Your task to perform on an android device: toggle sleep mode Image 0: 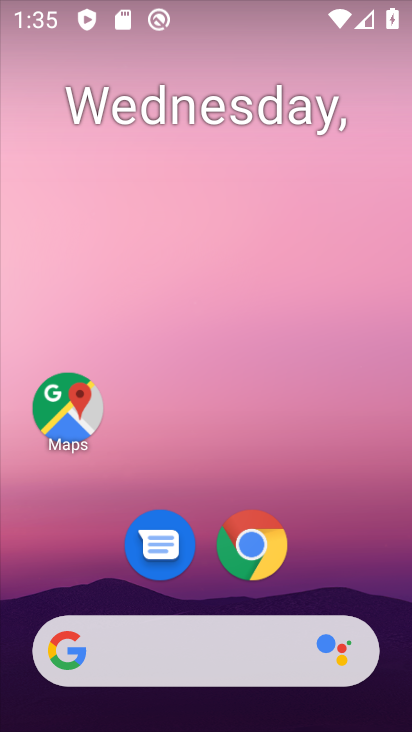
Step 0: drag from (312, 560) to (259, 62)
Your task to perform on an android device: toggle sleep mode Image 1: 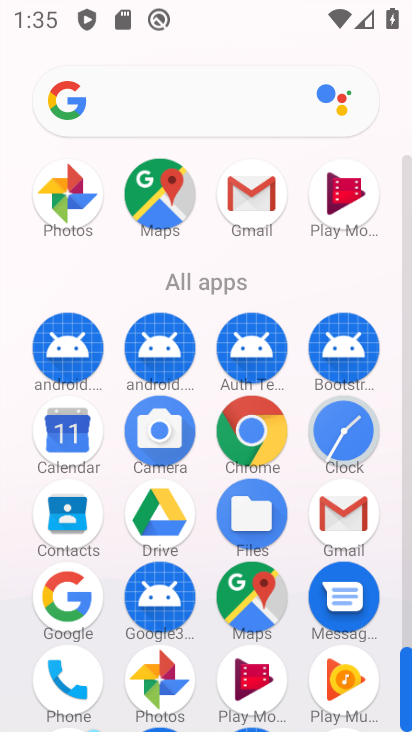
Step 1: drag from (184, 567) to (210, 197)
Your task to perform on an android device: toggle sleep mode Image 2: 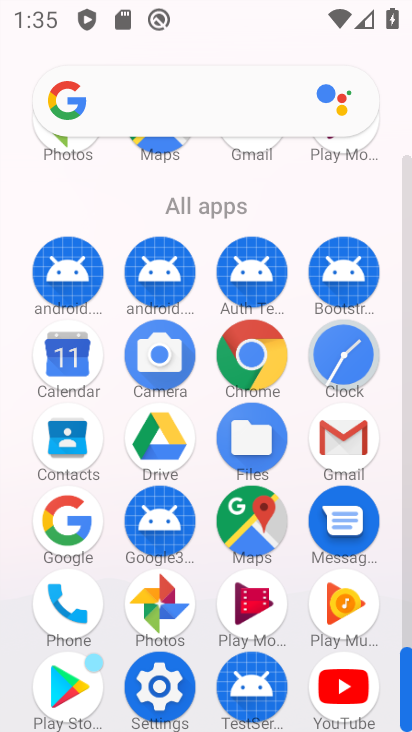
Step 2: click (169, 673)
Your task to perform on an android device: toggle sleep mode Image 3: 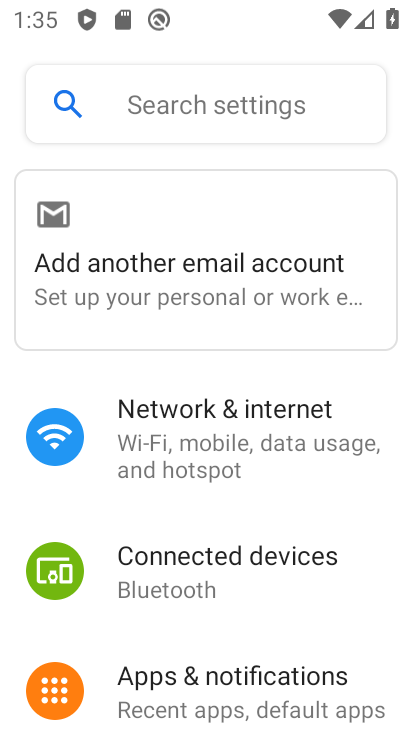
Step 3: drag from (253, 625) to (233, 164)
Your task to perform on an android device: toggle sleep mode Image 4: 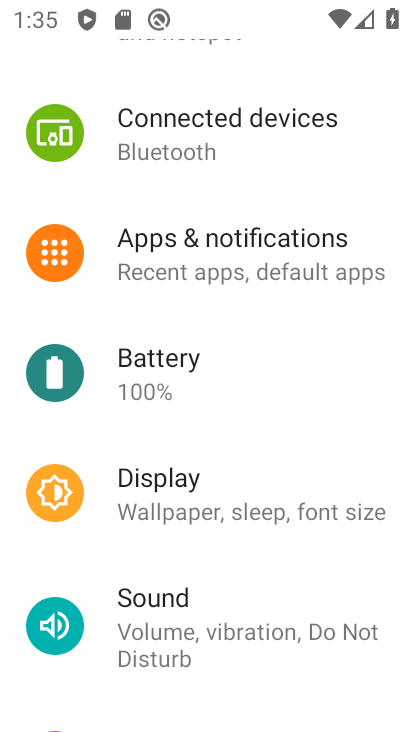
Step 4: drag from (259, 618) to (245, 308)
Your task to perform on an android device: toggle sleep mode Image 5: 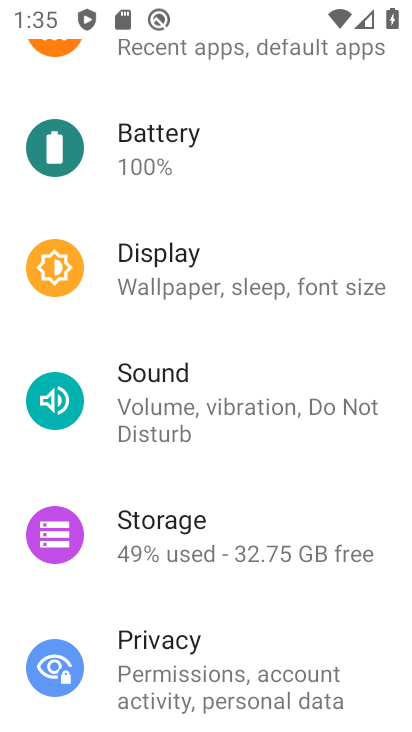
Step 5: click (243, 267)
Your task to perform on an android device: toggle sleep mode Image 6: 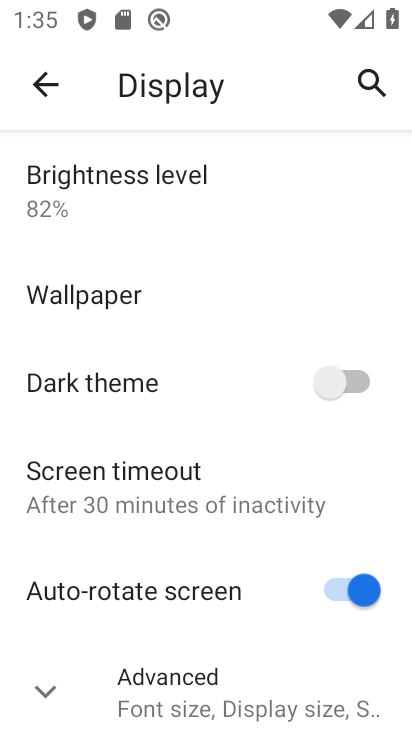
Step 6: click (171, 473)
Your task to perform on an android device: toggle sleep mode Image 7: 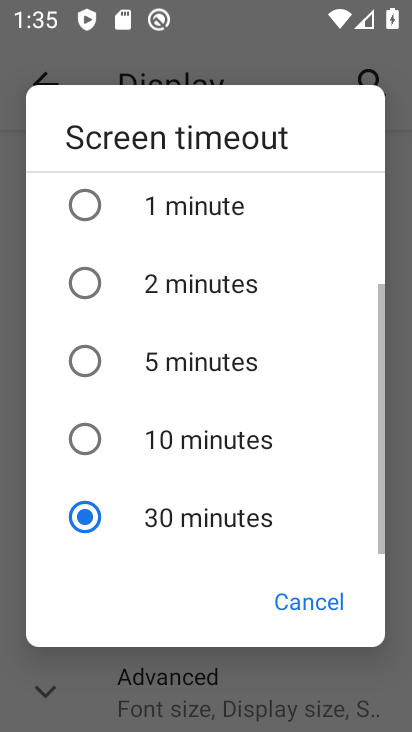
Step 7: click (128, 281)
Your task to perform on an android device: toggle sleep mode Image 8: 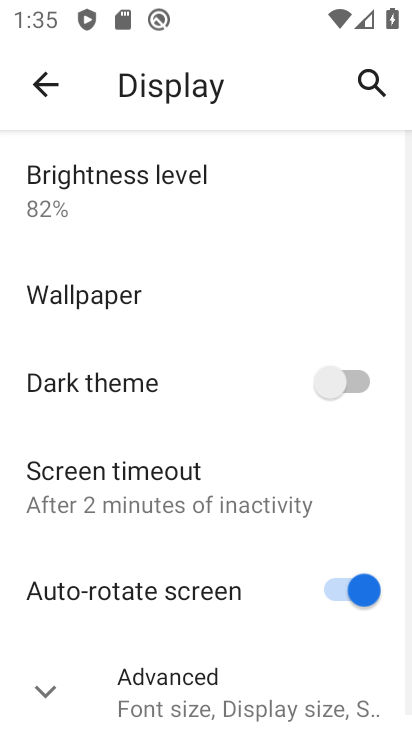
Step 8: task complete